Your task to perform on an android device: find photos in the google photos app Image 0: 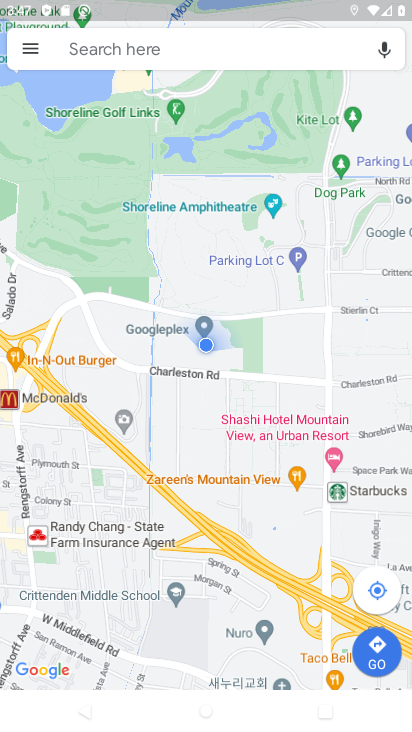
Step 0: press back button
Your task to perform on an android device: find photos in the google photos app Image 1: 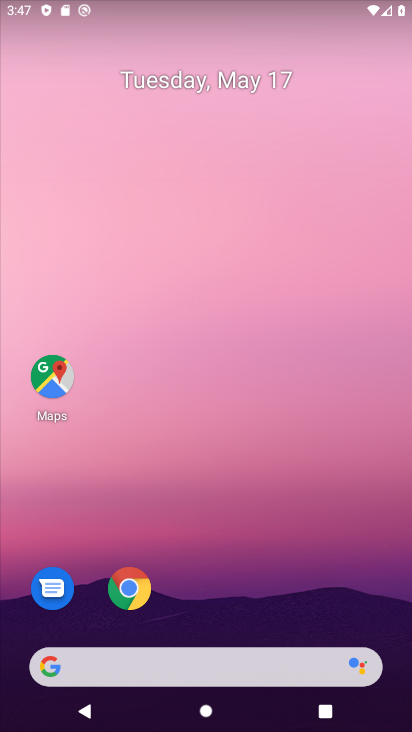
Step 1: drag from (261, 571) to (251, 57)
Your task to perform on an android device: find photos in the google photos app Image 2: 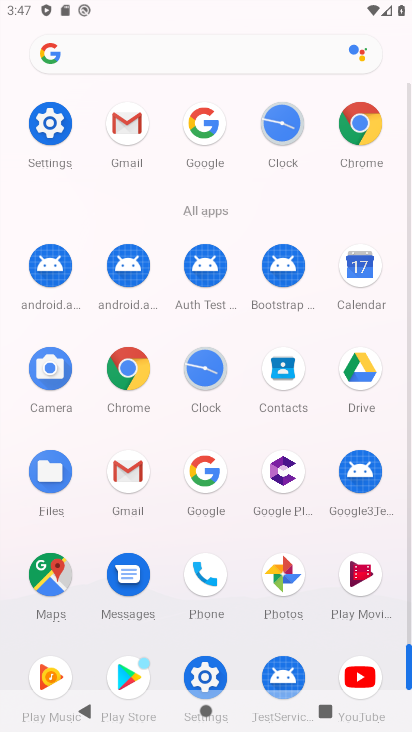
Step 2: drag from (245, 558) to (244, 404)
Your task to perform on an android device: find photos in the google photos app Image 3: 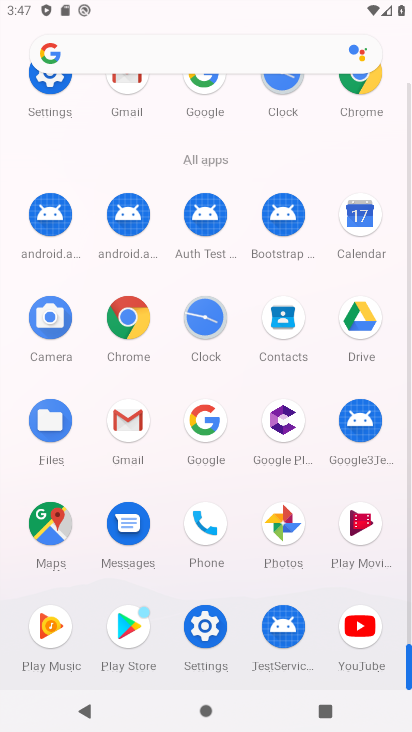
Step 3: click (284, 521)
Your task to perform on an android device: find photos in the google photos app Image 4: 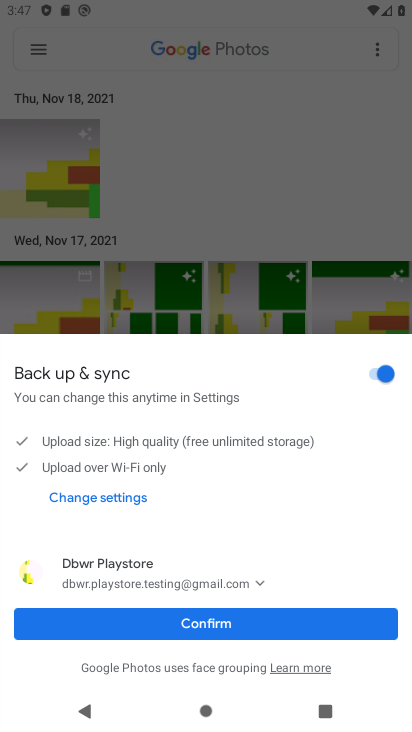
Step 4: click (196, 624)
Your task to perform on an android device: find photos in the google photos app Image 5: 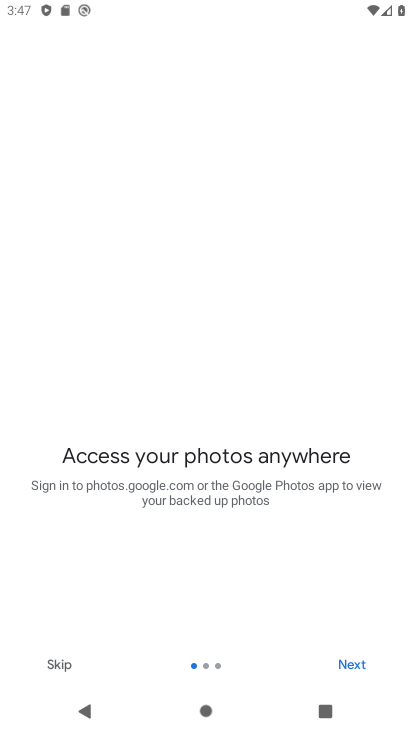
Step 5: click (360, 659)
Your task to perform on an android device: find photos in the google photos app Image 6: 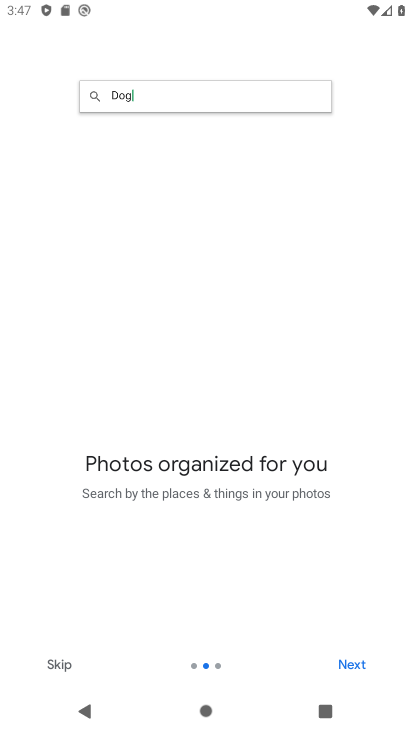
Step 6: click (358, 659)
Your task to perform on an android device: find photos in the google photos app Image 7: 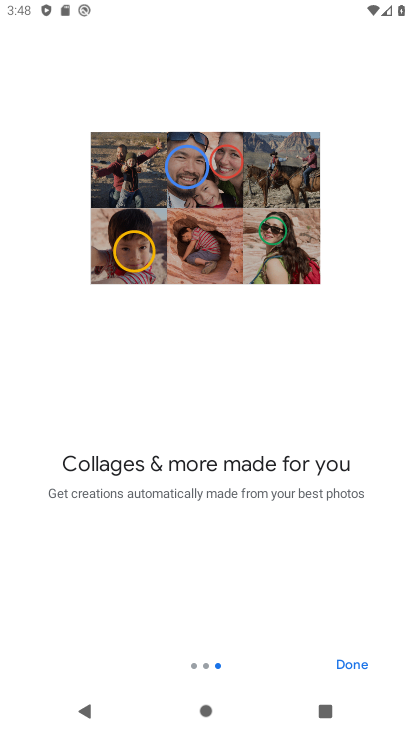
Step 7: click (358, 659)
Your task to perform on an android device: find photos in the google photos app Image 8: 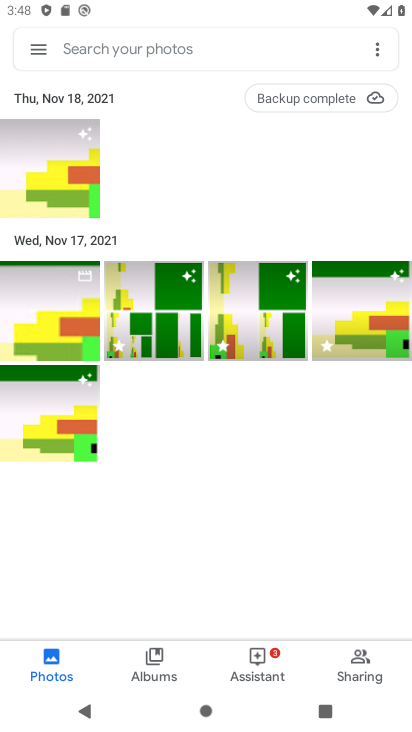
Step 8: click (62, 166)
Your task to perform on an android device: find photos in the google photos app Image 9: 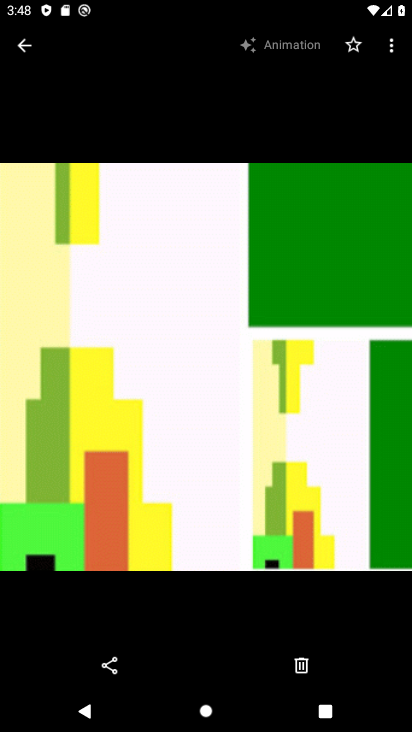
Step 9: task complete